Your task to perform on an android device: open a bookmark in the chrome app Image 0: 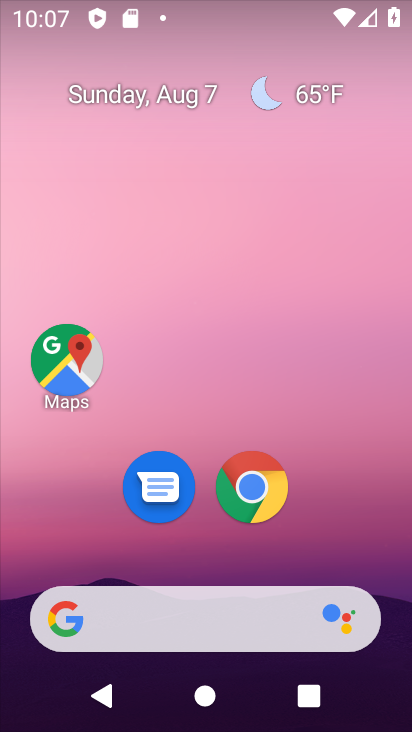
Step 0: click (245, 486)
Your task to perform on an android device: open a bookmark in the chrome app Image 1: 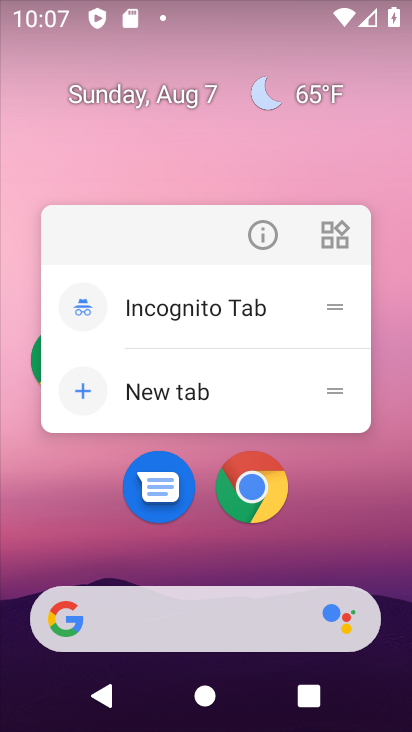
Step 1: click (256, 484)
Your task to perform on an android device: open a bookmark in the chrome app Image 2: 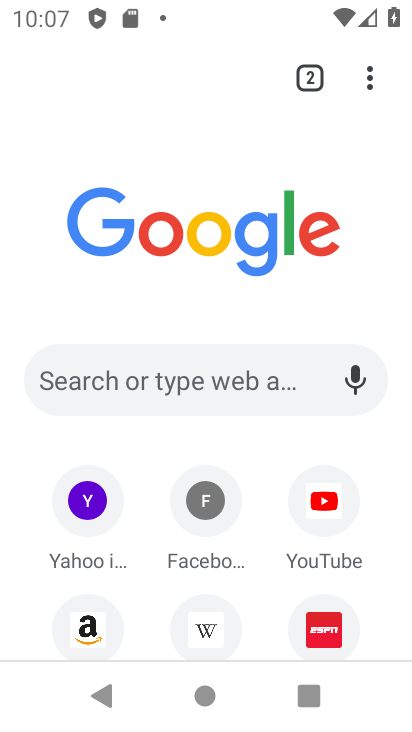
Step 2: click (362, 68)
Your task to perform on an android device: open a bookmark in the chrome app Image 3: 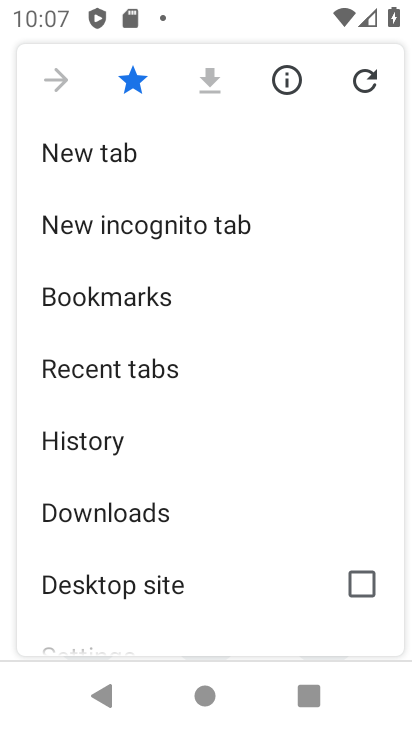
Step 3: click (147, 302)
Your task to perform on an android device: open a bookmark in the chrome app Image 4: 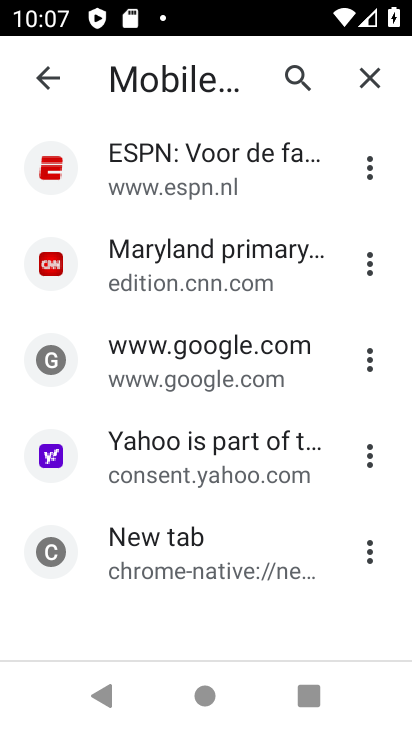
Step 4: click (147, 269)
Your task to perform on an android device: open a bookmark in the chrome app Image 5: 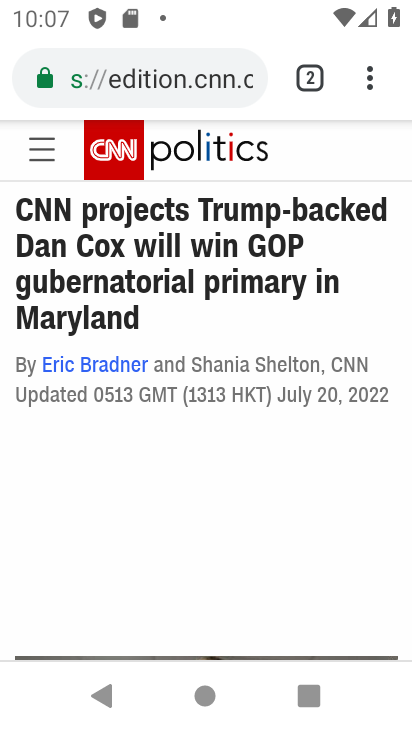
Step 5: task complete